Your task to perform on an android device: Search for Italian restaurants on Maps Image 0: 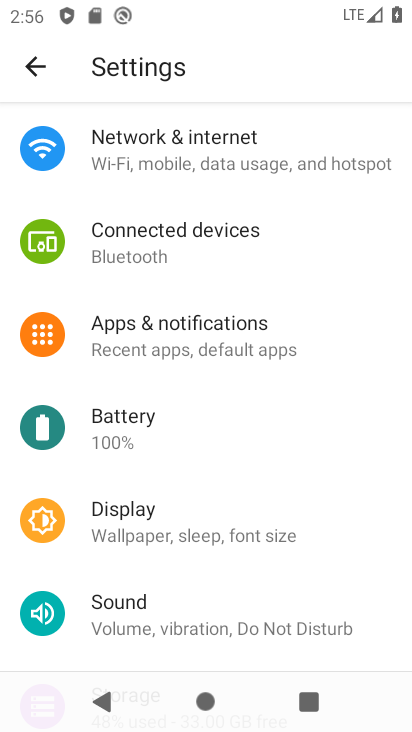
Step 0: press home button
Your task to perform on an android device: Search for Italian restaurants on Maps Image 1: 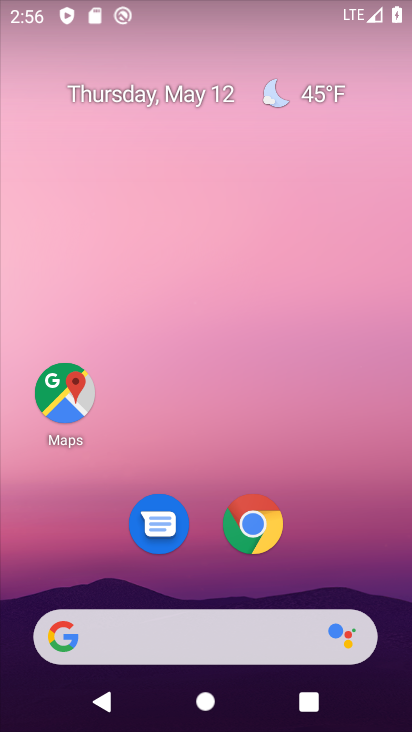
Step 1: click (62, 393)
Your task to perform on an android device: Search for Italian restaurants on Maps Image 2: 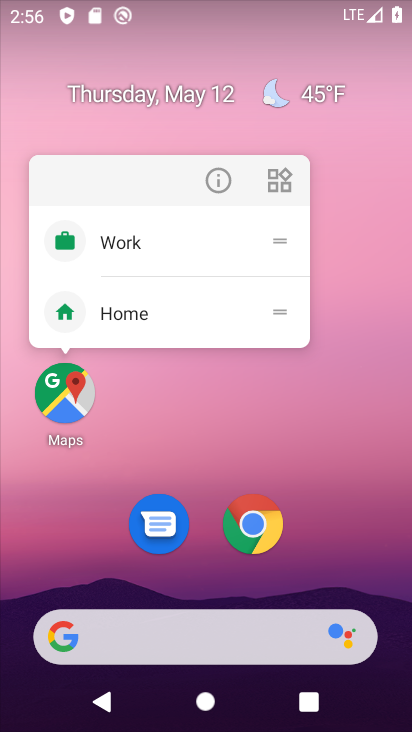
Step 2: click (58, 391)
Your task to perform on an android device: Search for Italian restaurants on Maps Image 3: 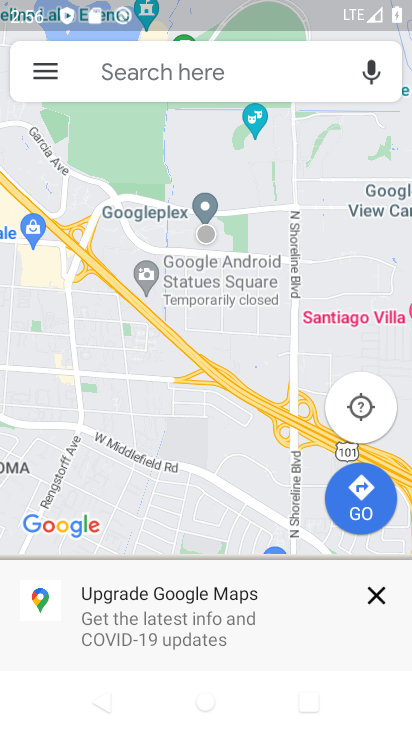
Step 3: click (156, 63)
Your task to perform on an android device: Search for Italian restaurants on Maps Image 4: 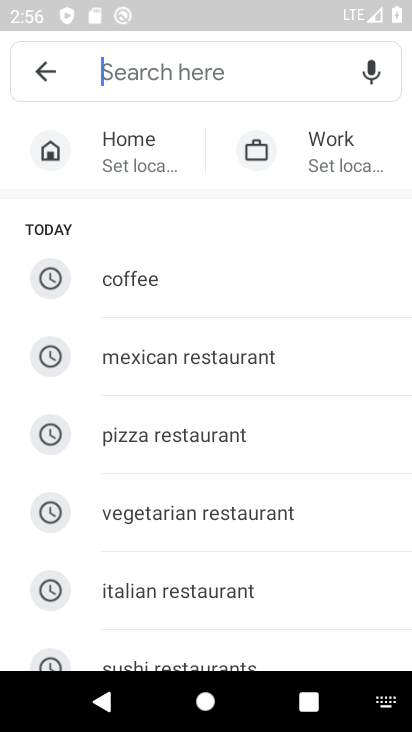
Step 4: click (204, 584)
Your task to perform on an android device: Search for Italian restaurants on Maps Image 5: 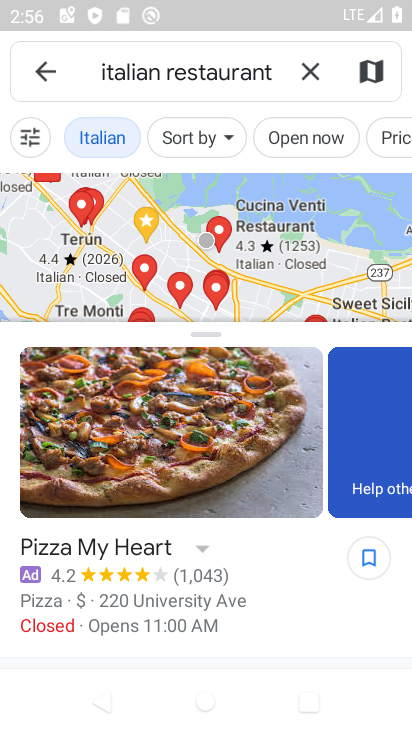
Step 5: task complete